Your task to perform on an android device: Go to CNN.com Image 0: 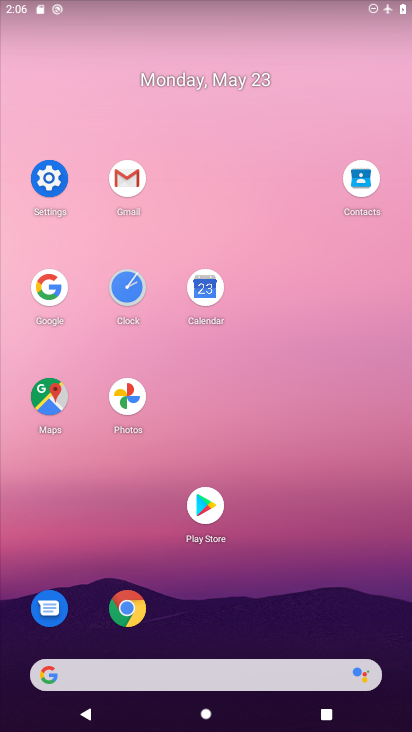
Step 0: click (140, 607)
Your task to perform on an android device: Go to CNN.com Image 1: 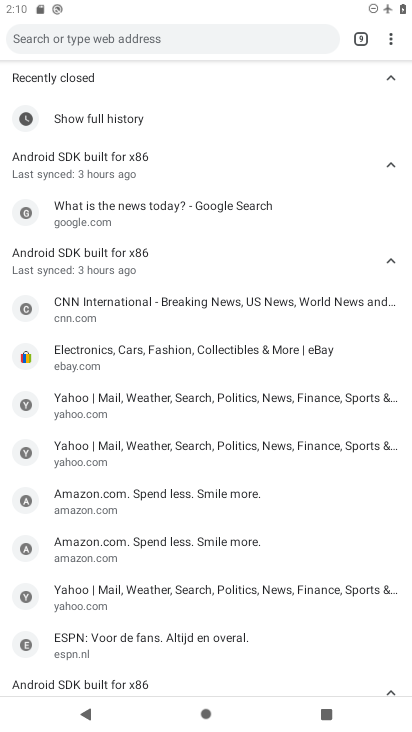
Step 1: click (360, 36)
Your task to perform on an android device: Go to CNN.com Image 2: 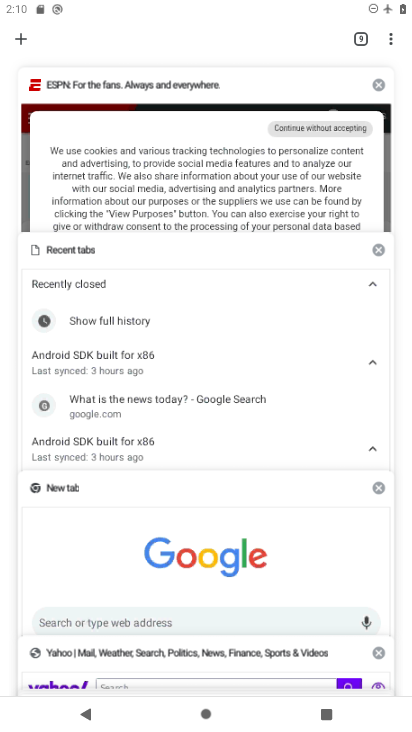
Step 2: drag from (157, 192) to (172, 554)
Your task to perform on an android device: Go to CNN.com Image 3: 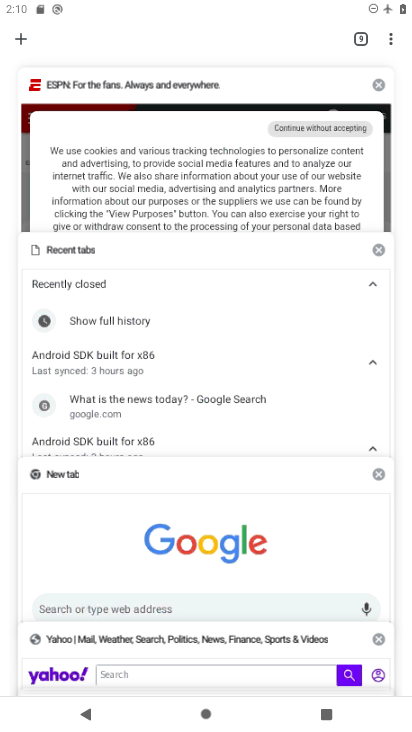
Step 3: drag from (208, 107) to (238, 466)
Your task to perform on an android device: Go to CNN.com Image 4: 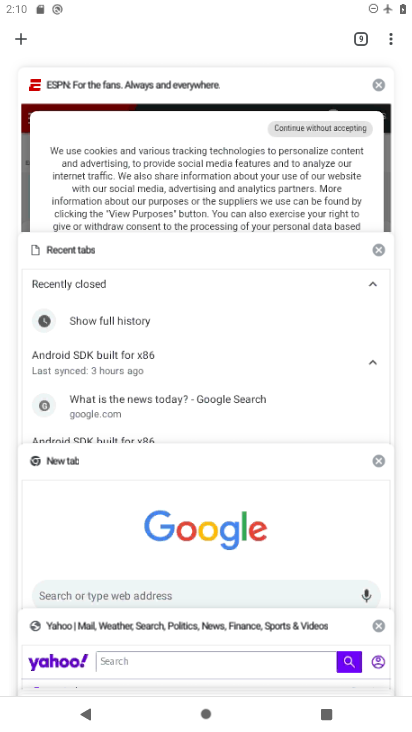
Step 4: drag from (180, 426) to (198, 60)
Your task to perform on an android device: Go to CNN.com Image 5: 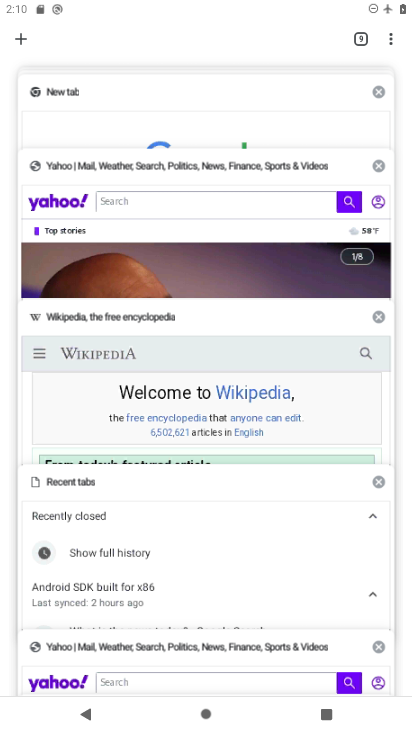
Step 5: drag from (188, 427) to (167, 49)
Your task to perform on an android device: Go to CNN.com Image 6: 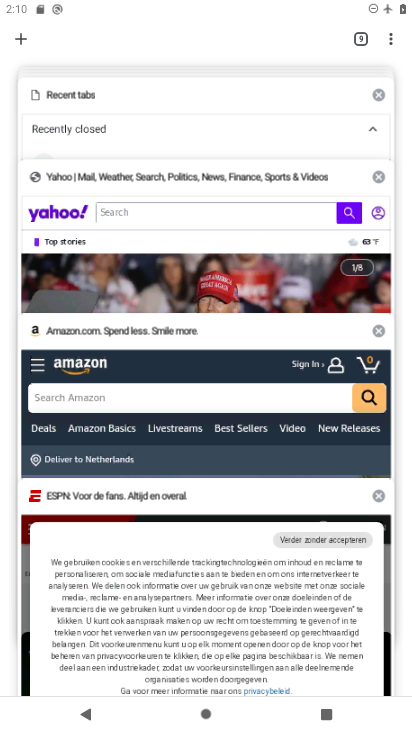
Step 6: drag from (159, 393) to (178, 164)
Your task to perform on an android device: Go to CNN.com Image 7: 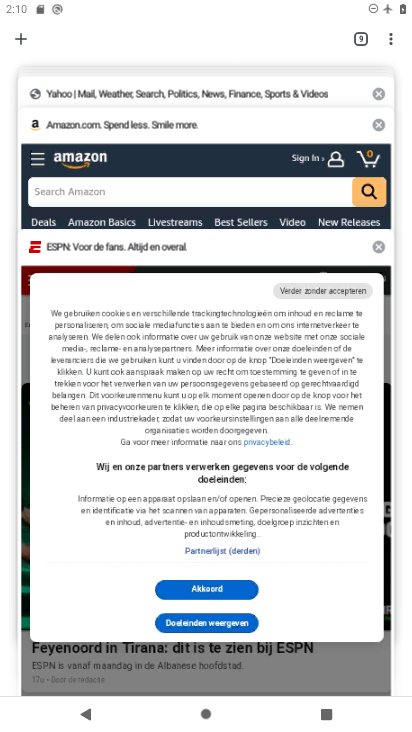
Step 7: click (23, 46)
Your task to perform on an android device: Go to CNN.com Image 8: 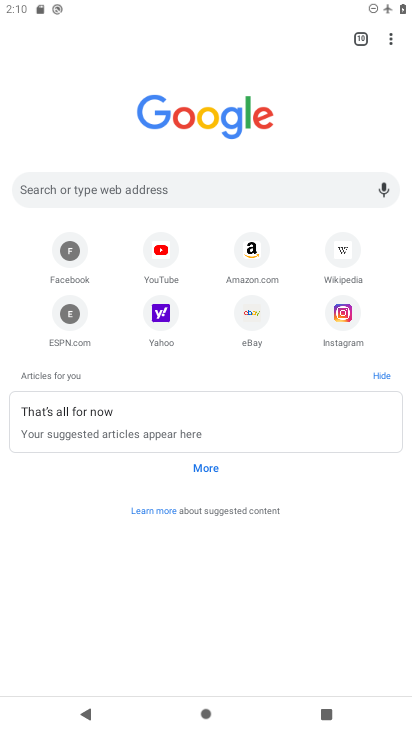
Step 8: click (170, 177)
Your task to perform on an android device: Go to CNN.com Image 9: 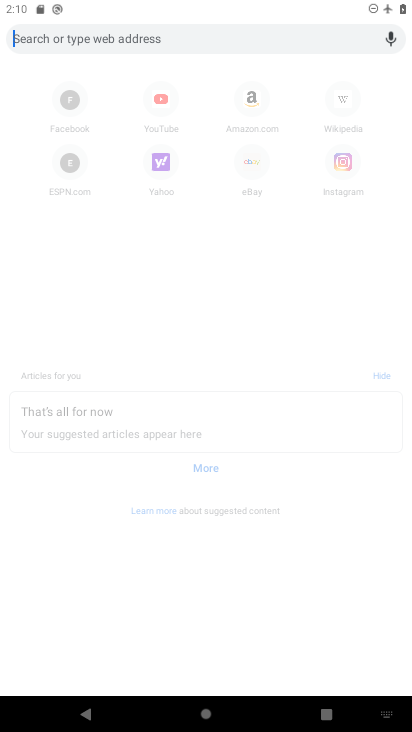
Step 9: type "cnn"
Your task to perform on an android device: Go to CNN.com Image 10: 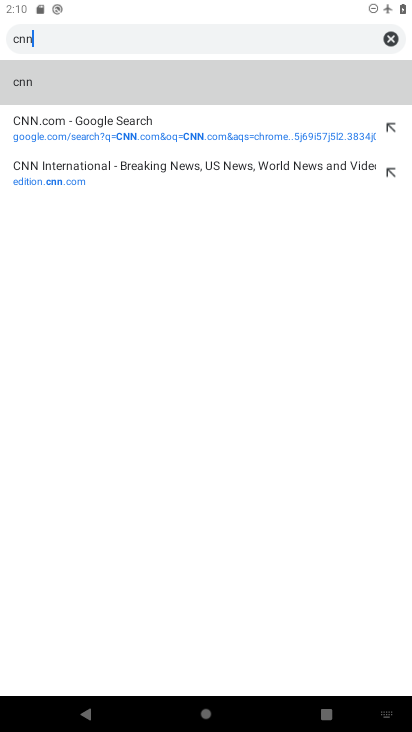
Step 10: click (98, 120)
Your task to perform on an android device: Go to CNN.com Image 11: 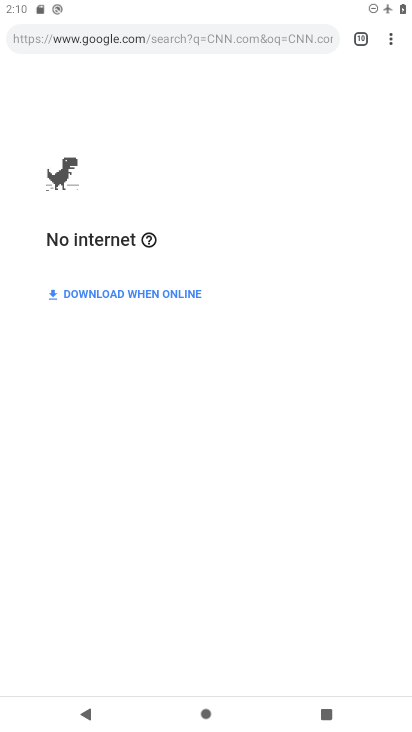
Step 11: task complete